Your task to perform on an android device: Open maps Image 0: 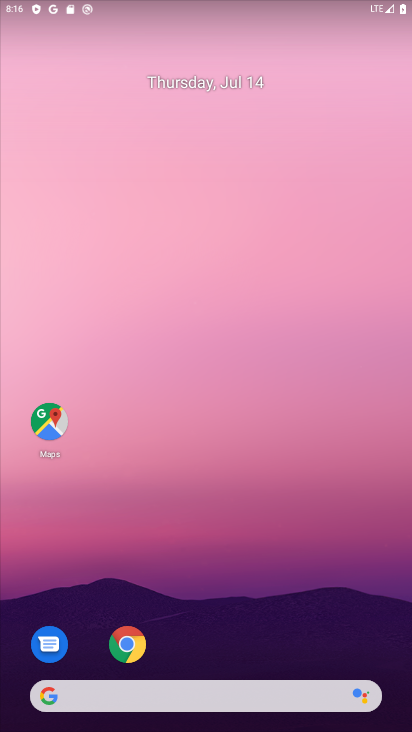
Step 0: drag from (190, 643) to (257, 140)
Your task to perform on an android device: Open maps Image 1: 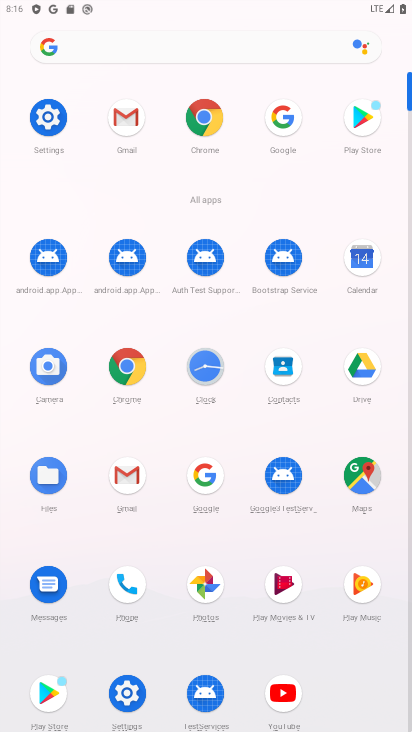
Step 1: click (350, 482)
Your task to perform on an android device: Open maps Image 2: 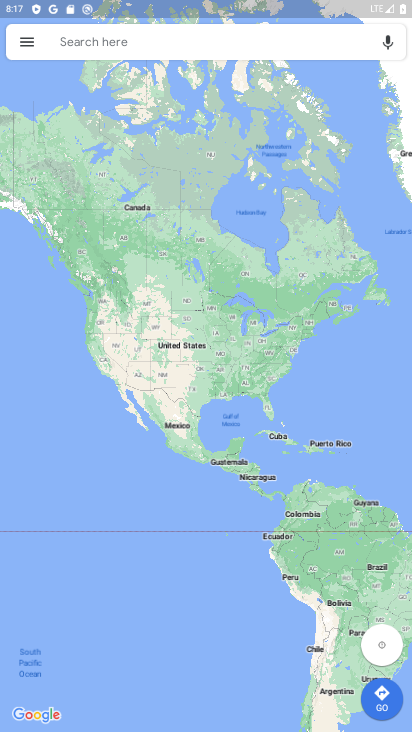
Step 2: task complete